Your task to perform on an android device: check out phone information Image 0: 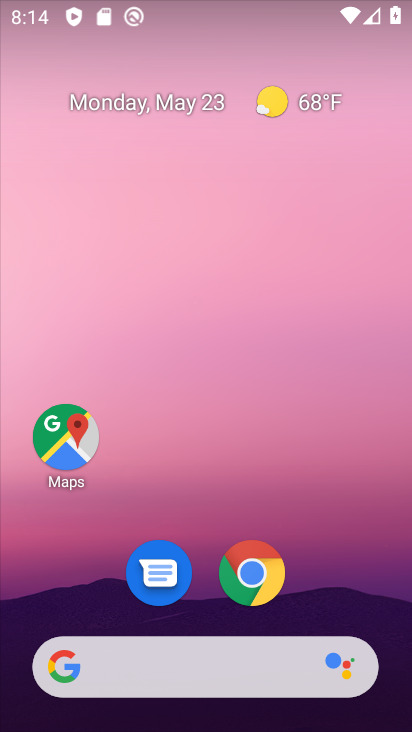
Step 0: drag from (208, 619) to (252, 1)
Your task to perform on an android device: check out phone information Image 1: 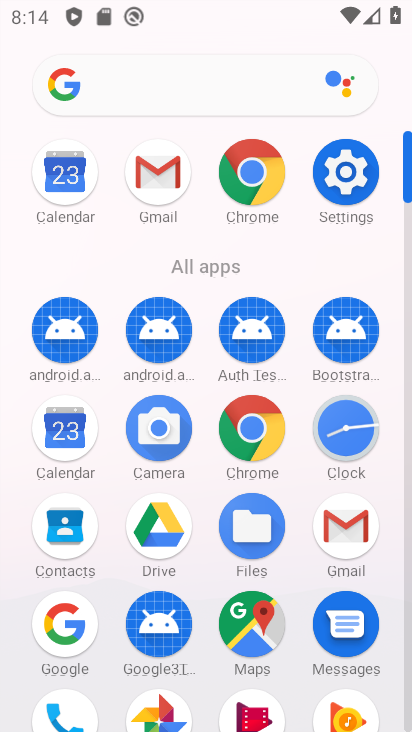
Step 1: click (346, 168)
Your task to perform on an android device: check out phone information Image 2: 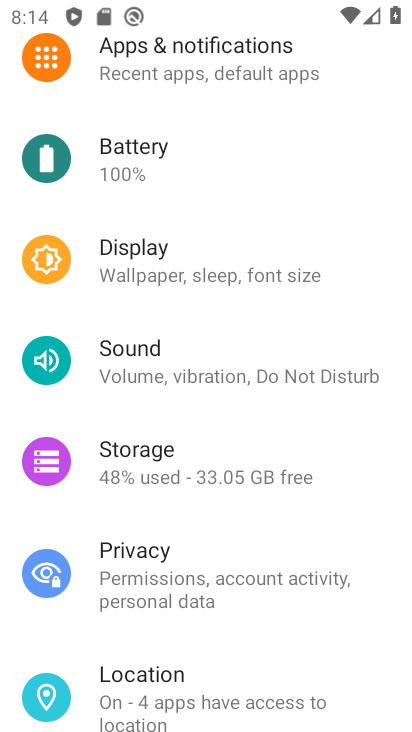
Step 2: drag from (196, 669) to (236, 25)
Your task to perform on an android device: check out phone information Image 3: 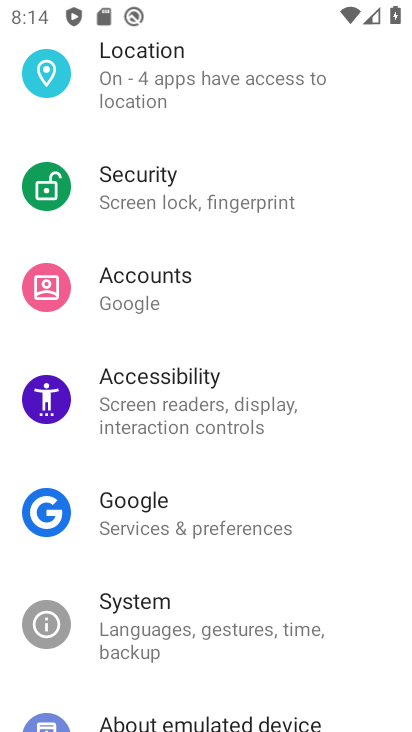
Step 3: click (165, 718)
Your task to perform on an android device: check out phone information Image 4: 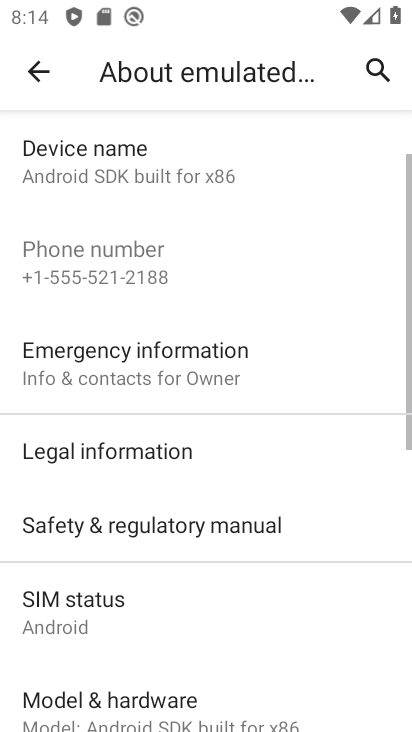
Step 4: task complete